Your task to perform on an android device: see tabs open on other devices in the chrome app Image 0: 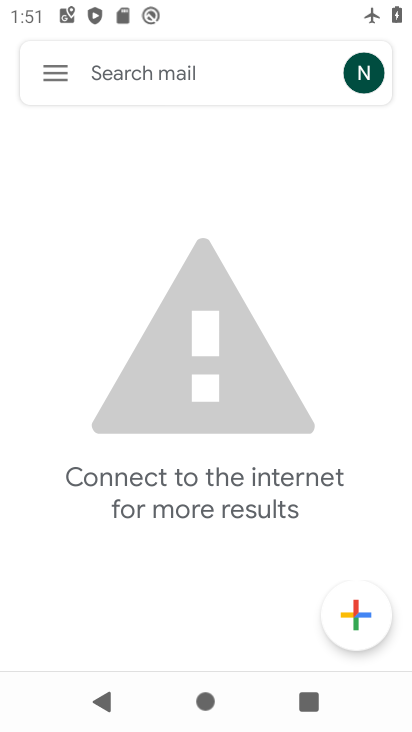
Step 0: press home button
Your task to perform on an android device: see tabs open on other devices in the chrome app Image 1: 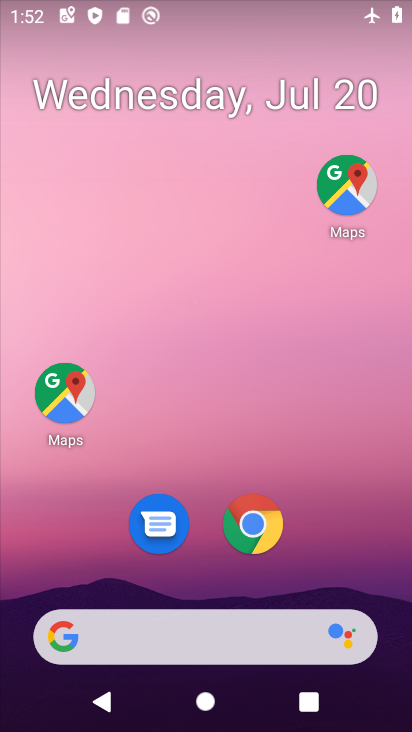
Step 1: click (272, 529)
Your task to perform on an android device: see tabs open on other devices in the chrome app Image 2: 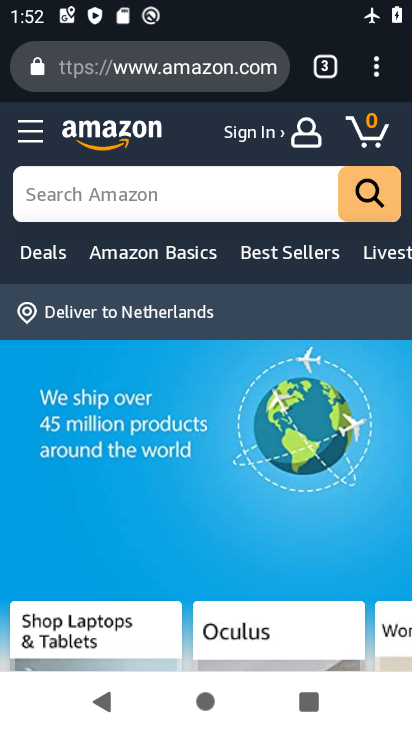
Step 2: click (377, 70)
Your task to perform on an android device: see tabs open on other devices in the chrome app Image 3: 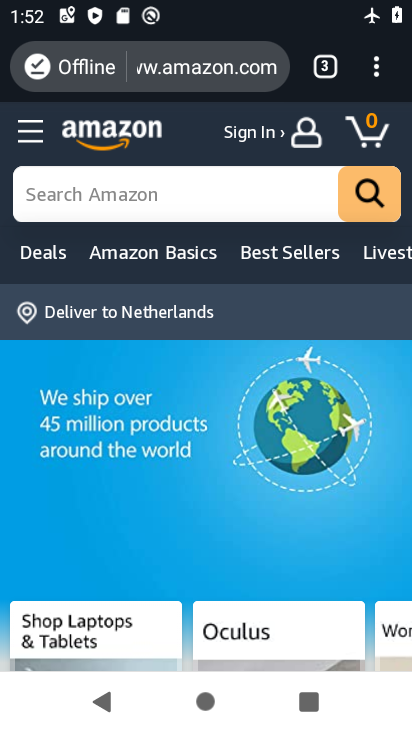
Step 3: click (377, 70)
Your task to perform on an android device: see tabs open on other devices in the chrome app Image 4: 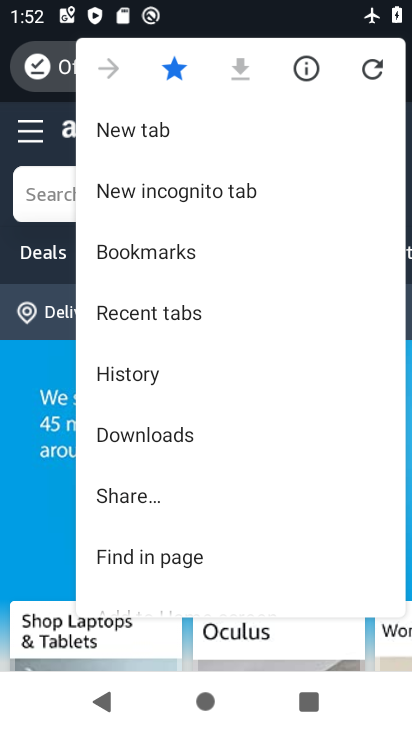
Step 4: click (197, 315)
Your task to perform on an android device: see tabs open on other devices in the chrome app Image 5: 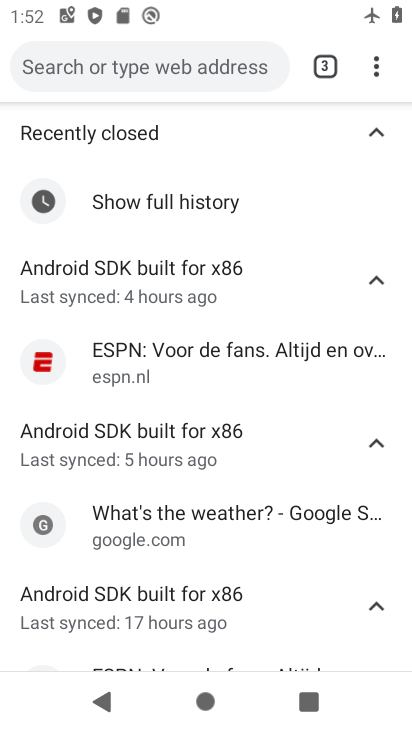
Step 5: task complete